Your task to perform on an android device: turn on javascript in the chrome app Image 0: 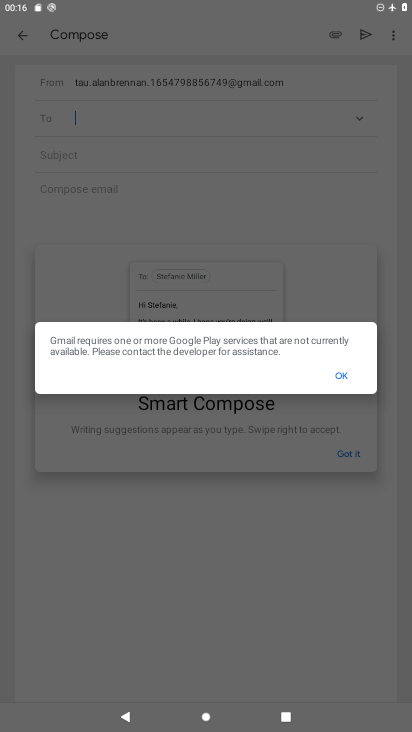
Step 0: press home button
Your task to perform on an android device: turn on javascript in the chrome app Image 1: 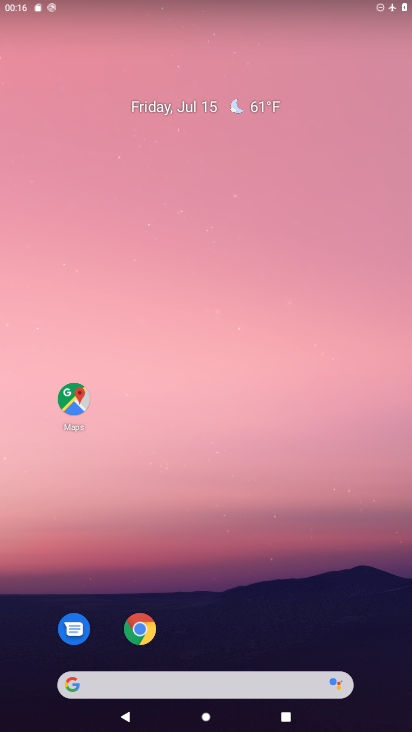
Step 1: drag from (183, 629) to (360, 25)
Your task to perform on an android device: turn on javascript in the chrome app Image 2: 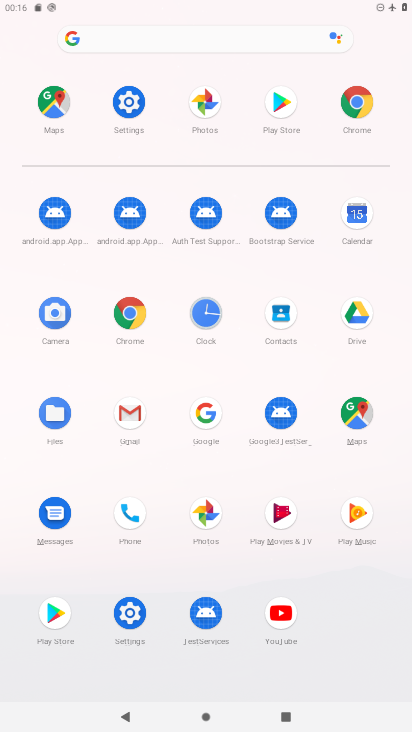
Step 2: click (350, 109)
Your task to perform on an android device: turn on javascript in the chrome app Image 3: 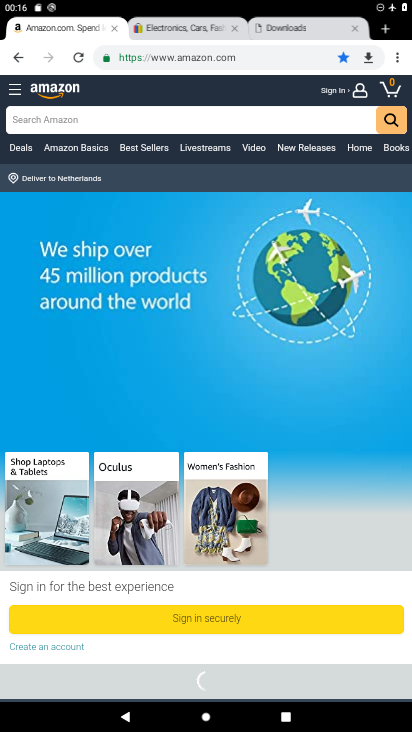
Step 3: click (401, 55)
Your task to perform on an android device: turn on javascript in the chrome app Image 4: 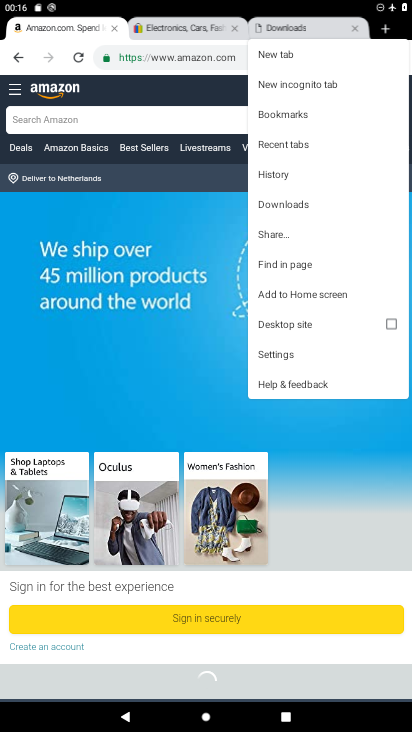
Step 4: click (295, 357)
Your task to perform on an android device: turn on javascript in the chrome app Image 5: 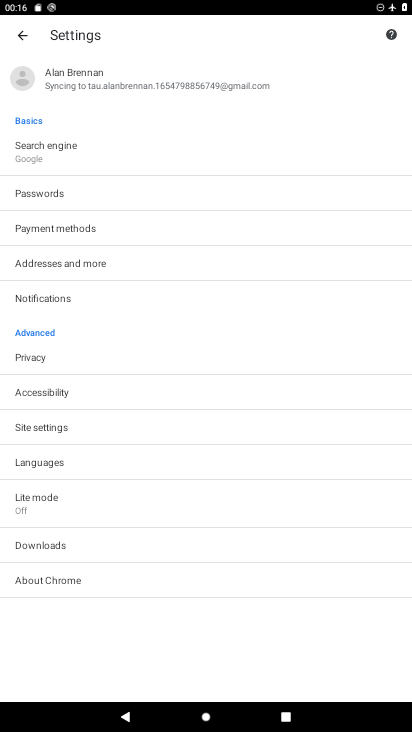
Step 5: click (71, 429)
Your task to perform on an android device: turn on javascript in the chrome app Image 6: 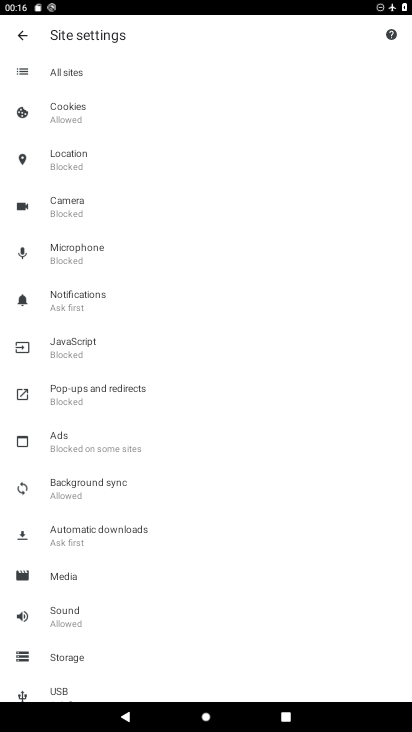
Step 6: click (96, 341)
Your task to perform on an android device: turn on javascript in the chrome app Image 7: 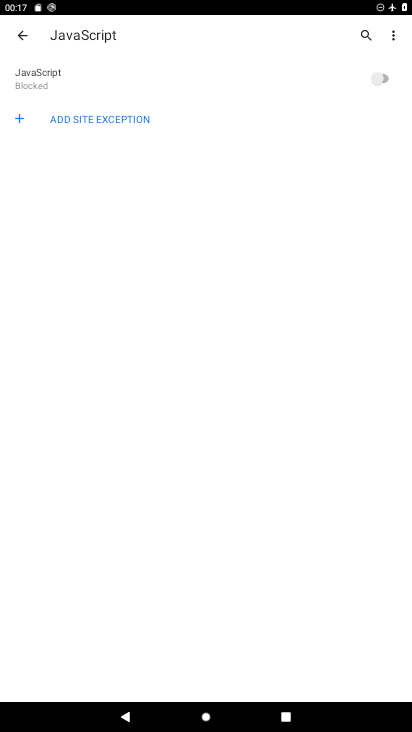
Step 7: click (377, 81)
Your task to perform on an android device: turn on javascript in the chrome app Image 8: 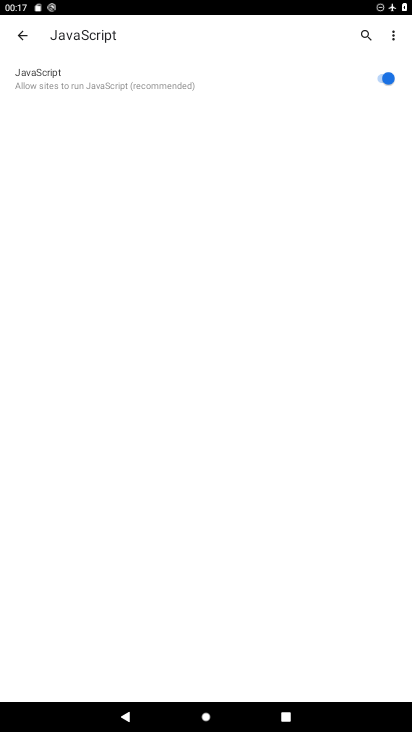
Step 8: task complete